Your task to perform on an android device: read, delete, or share a saved page in the chrome app Image 0: 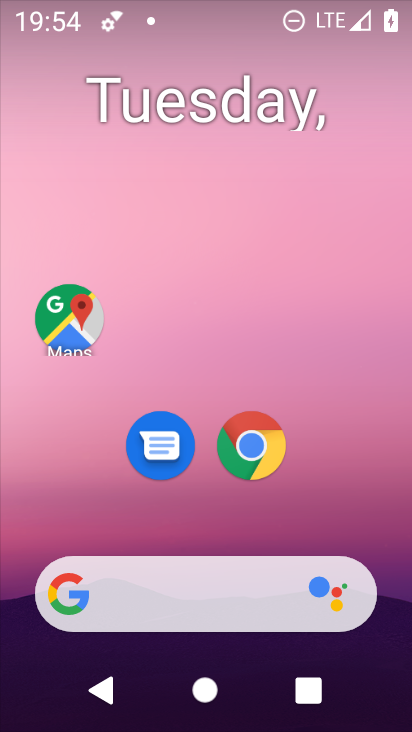
Step 0: click (247, 455)
Your task to perform on an android device: read, delete, or share a saved page in the chrome app Image 1: 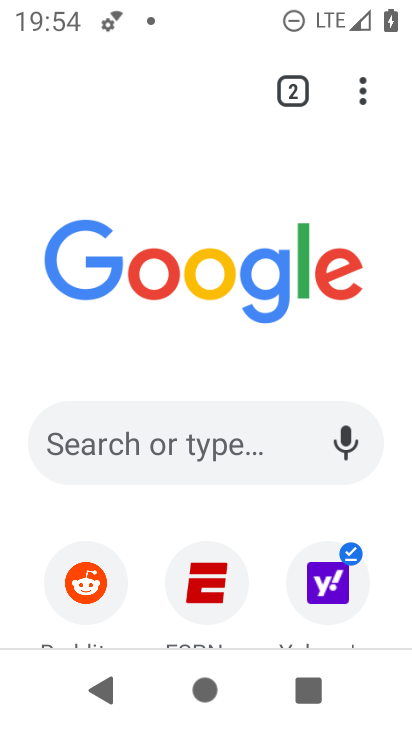
Step 1: click (357, 99)
Your task to perform on an android device: read, delete, or share a saved page in the chrome app Image 2: 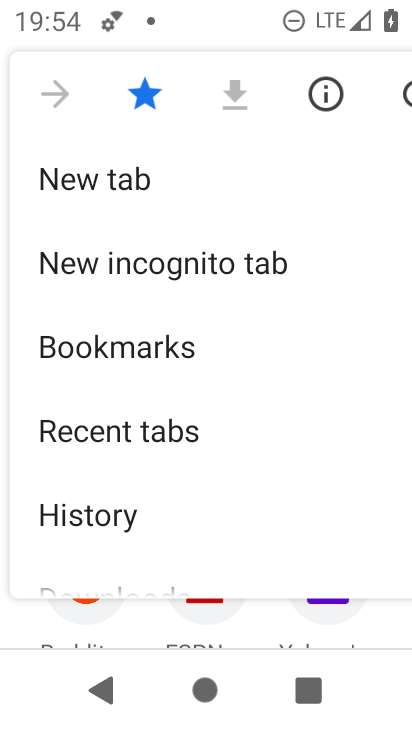
Step 2: task complete